Your task to perform on an android device: change the clock style Image 0: 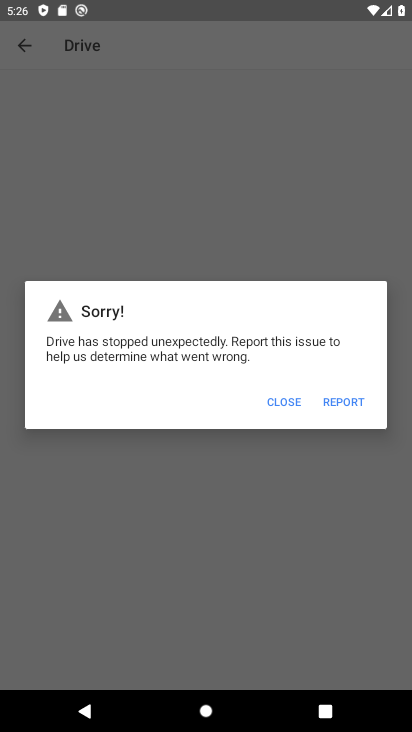
Step 0: press back button
Your task to perform on an android device: change the clock style Image 1: 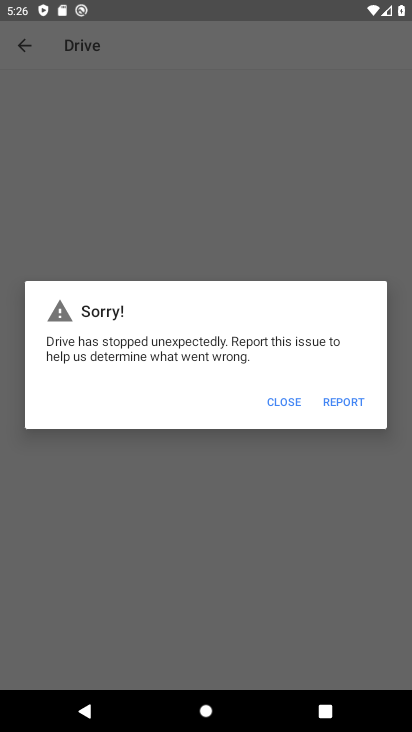
Step 1: press home button
Your task to perform on an android device: change the clock style Image 2: 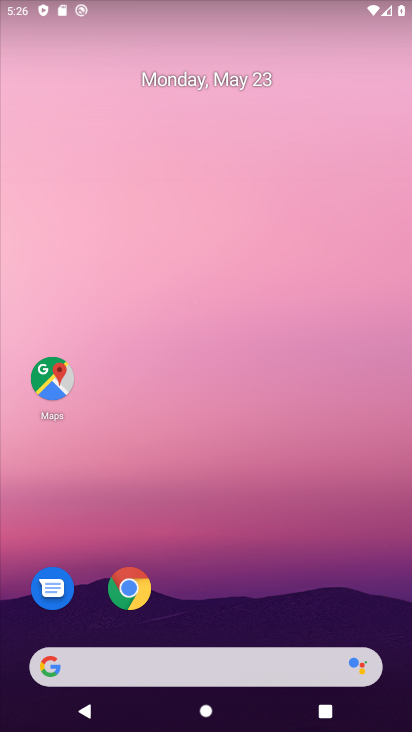
Step 2: drag from (230, 527) to (183, 5)
Your task to perform on an android device: change the clock style Image 3: 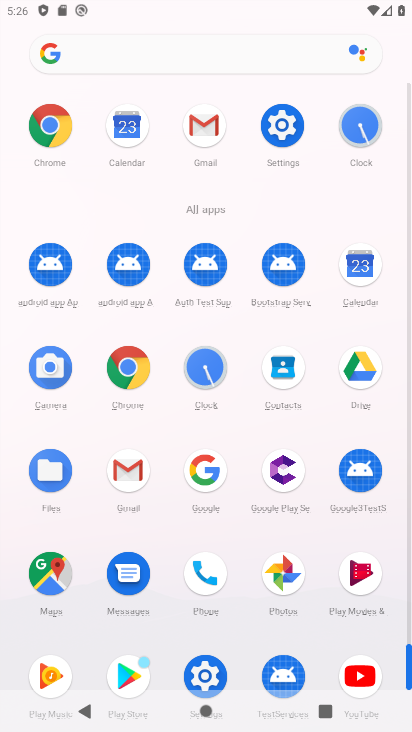
Step 3: drag from (6, 484) to (8, 180)
Your task to perform on an android device: change the clock style Image 4: 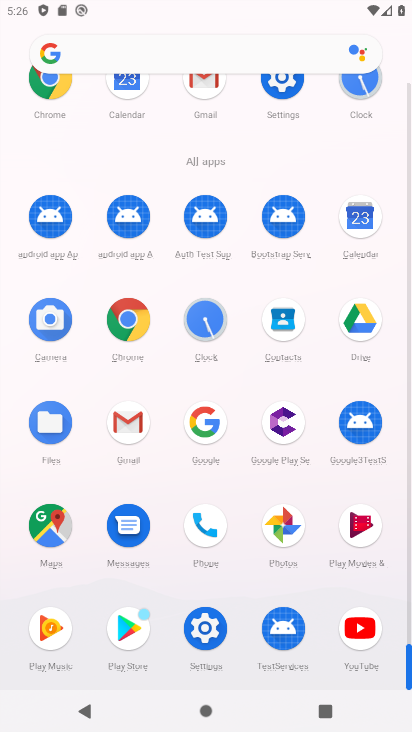
Step 4: click (203, 313)
Your task to perform on an android device: change the clock style Image 5: 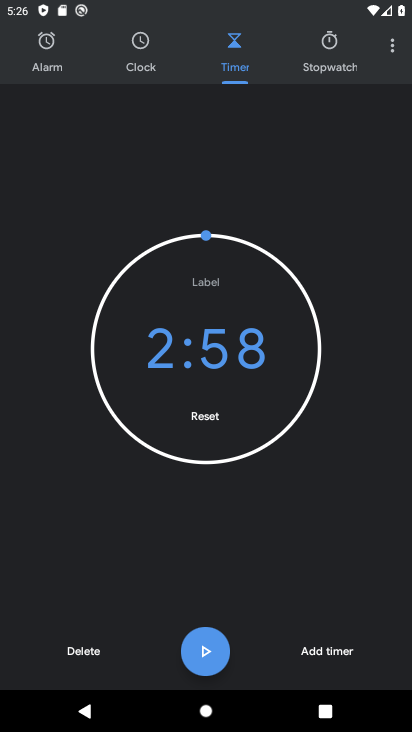
Step 5: drag from (392, 44) to (304, 92)
Your task to perform on an android device: change the clock style Image 6: 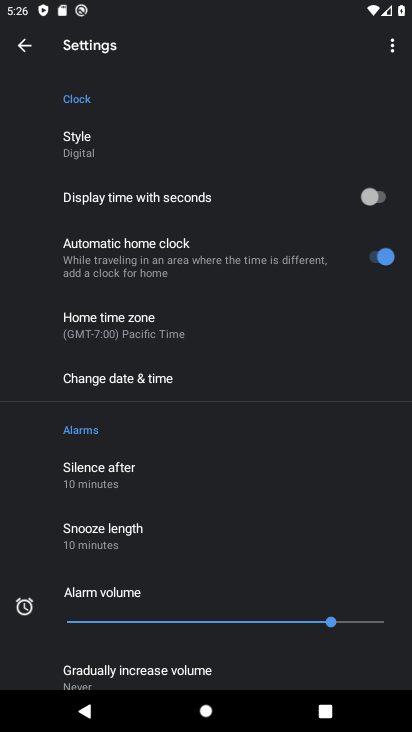
Step 6: click (108, 137)
Your task to perform on an android device: change the clock style Image 7: 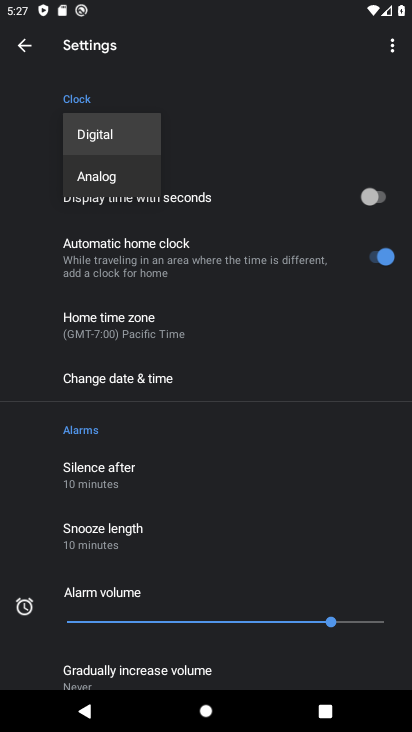
Step 7: click (108, 177)
Your task to perform on an android device: change the clock style Image 8: 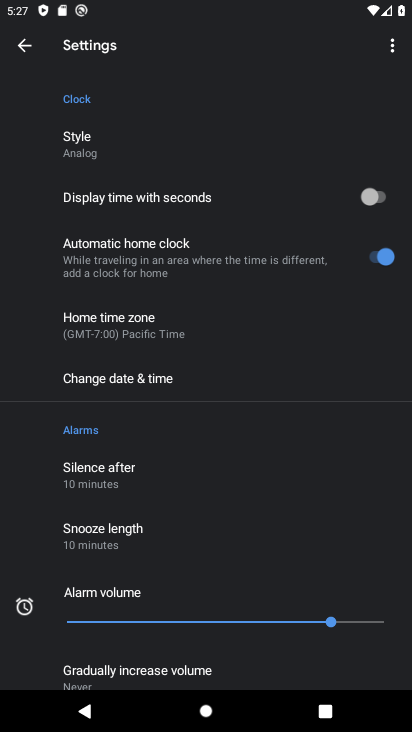
Step 8: task complete